Your task to perform on an android device: add a contact in the contacts app Image 0: 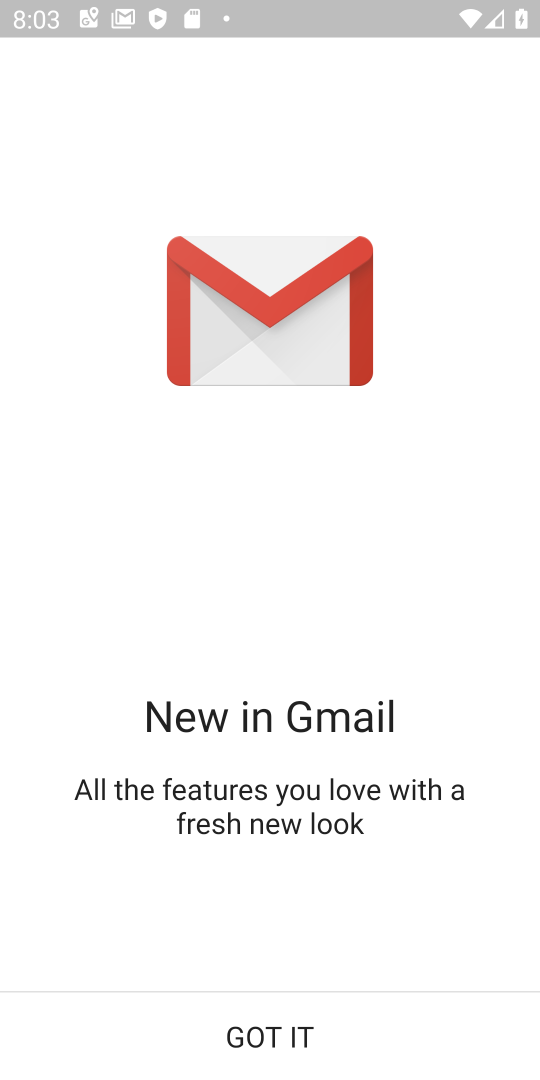
Step 0: press home button
Your task to perform on an android device: add a contact in the contacts app Image 1: 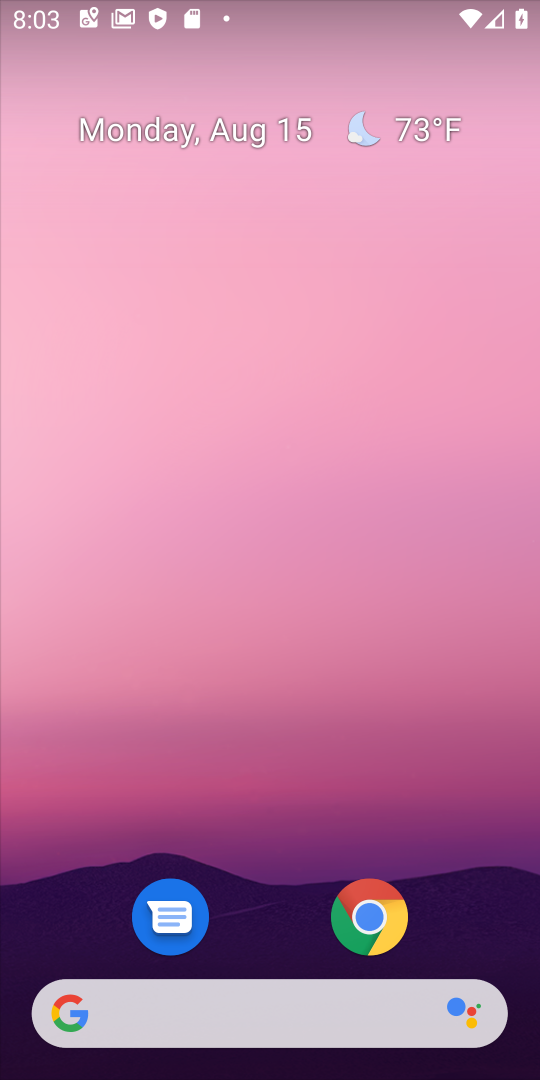
Step 1: drag from (274, 866) to (227, 0)
Your task to perform on an android device: add a contact in the contacts app Image 2: 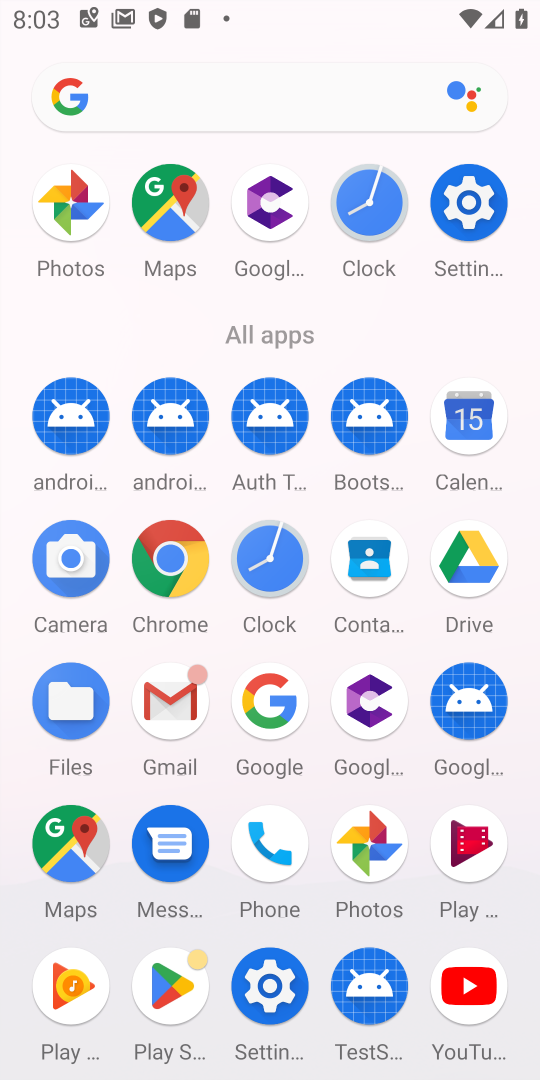
Step 2: click (378, 567)
Your task to perform on an android device: add a contact in the contacts app Image 3: 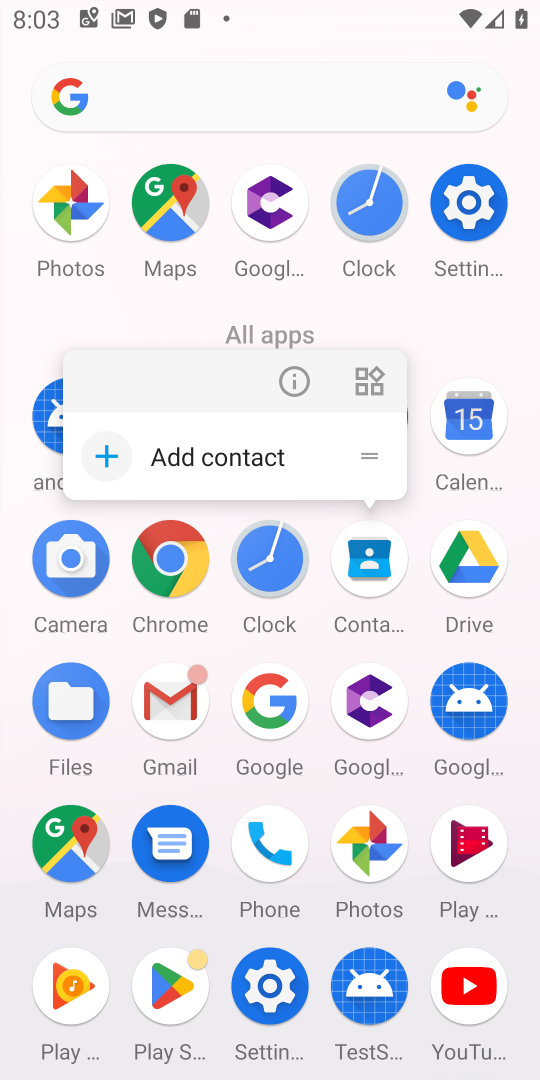
Step 3: click (378, 562)
Your task to perform on an android device: add a contact in the contacts app Image 4: 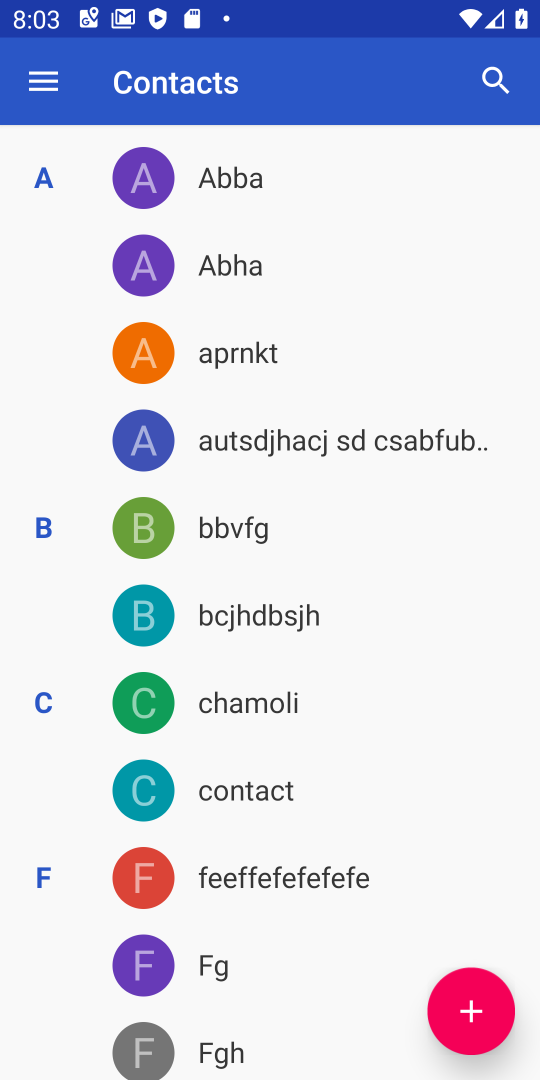
Step 4: click (467, 1021)
Your task to perform on an android device: add a contact in the contacts app Image 5: 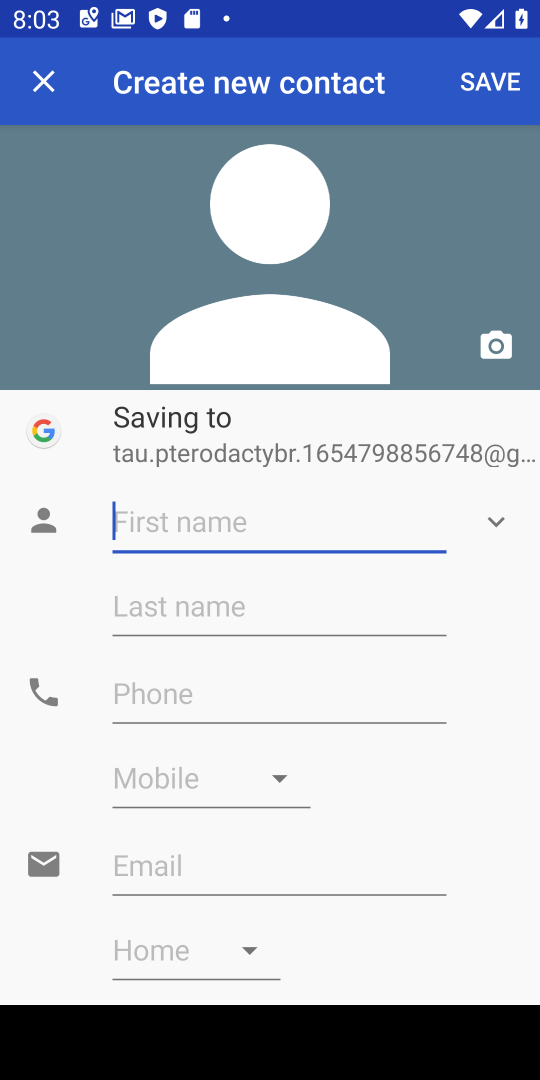
Step 5: type "Abhay"
Your task to perform on an android device: add a contact in the contacts app Image 6: 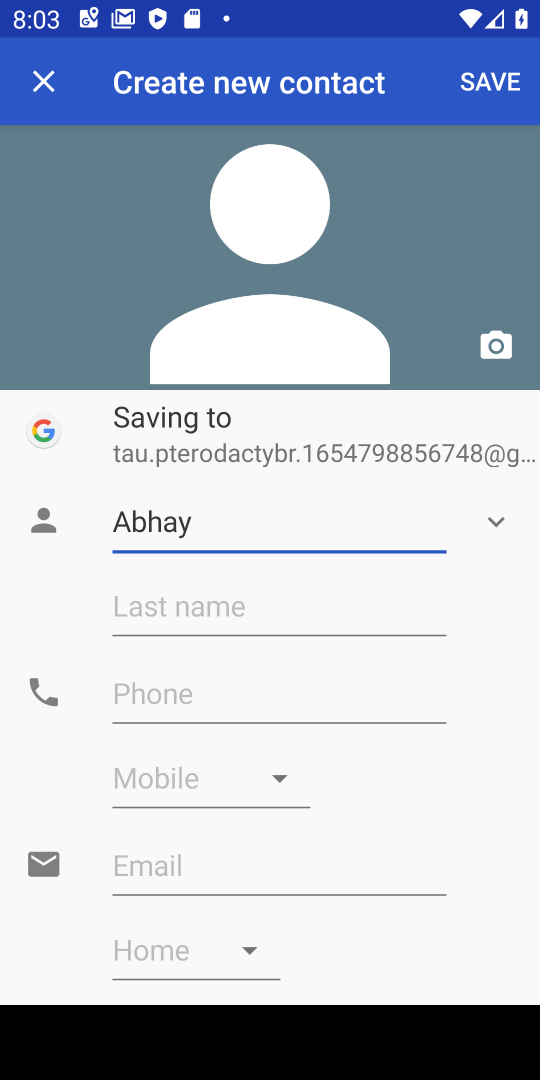
Step 6: click (268, 702)
Your task to perform on an android device: add a contact in the contacts app Image 7: 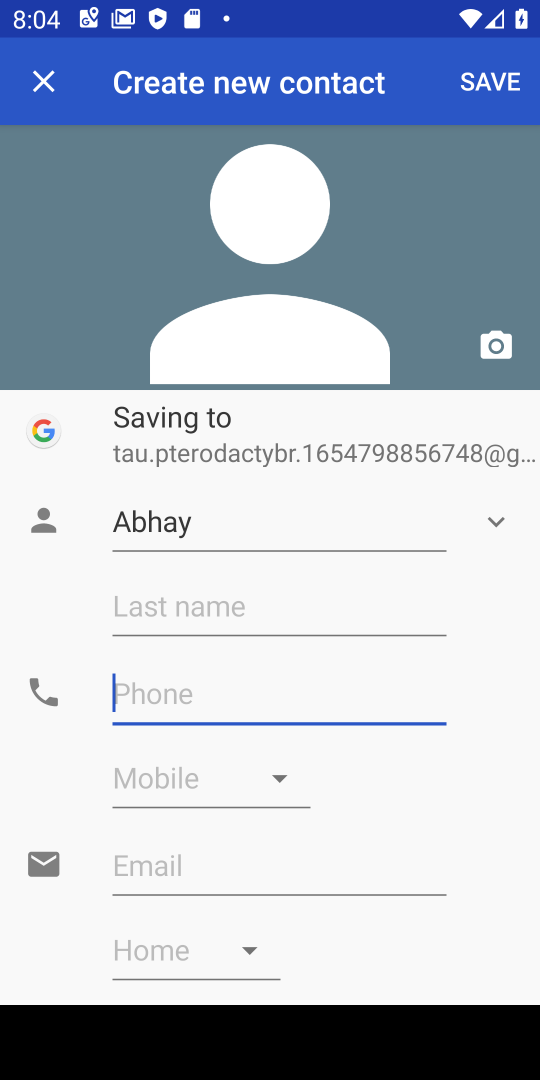
Step 7: type "+9199998765432"
Your task to perform on an android device: add a contact in the contacts app Image 8: 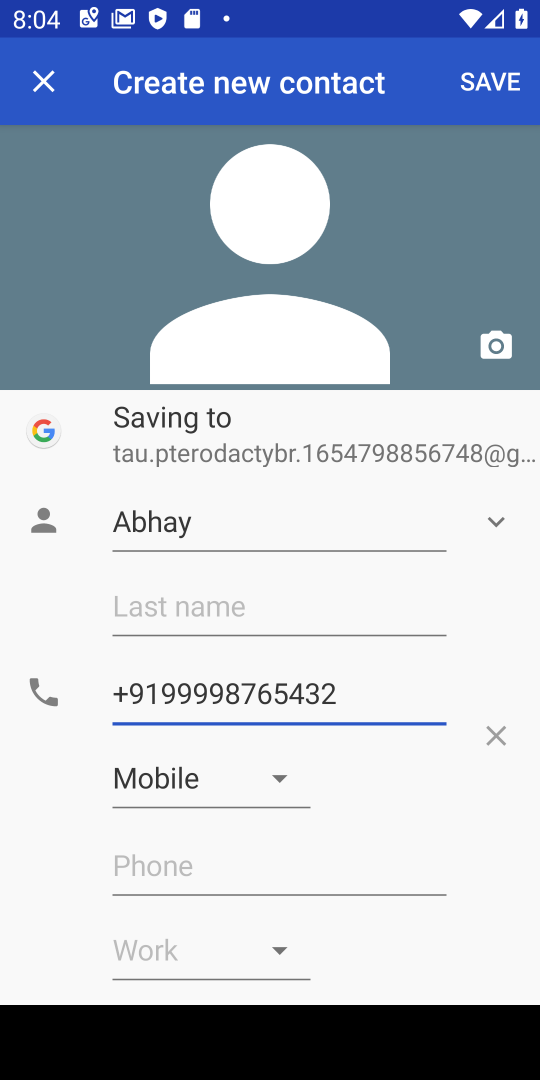
Step 8: click (500, 79)
Your task to perform on an android device: add a contact in the contacts app Image 9: 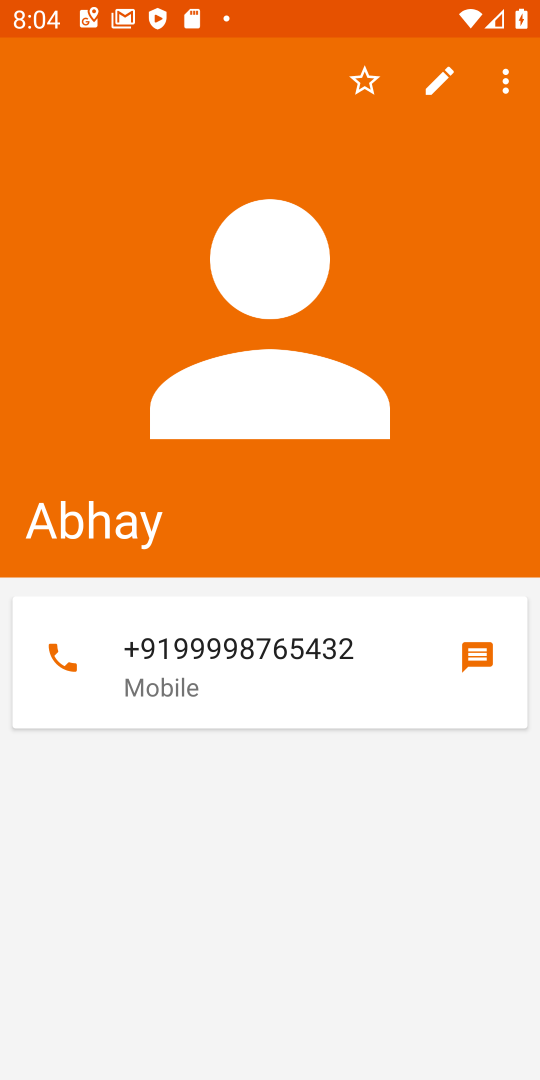
Step 9: task complete